Your task to perform on an android device: star an email in the gmail app Image 0: 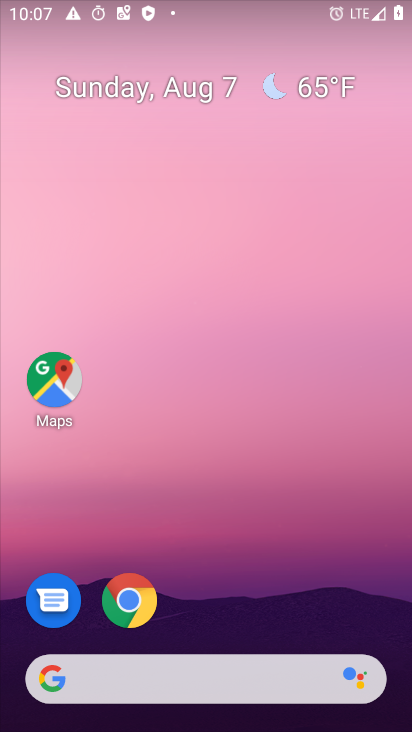
Step 0: drag from (201, 578) to (219, 32)
Your task to perform on an android device: star an email in the gmail app Image 1: 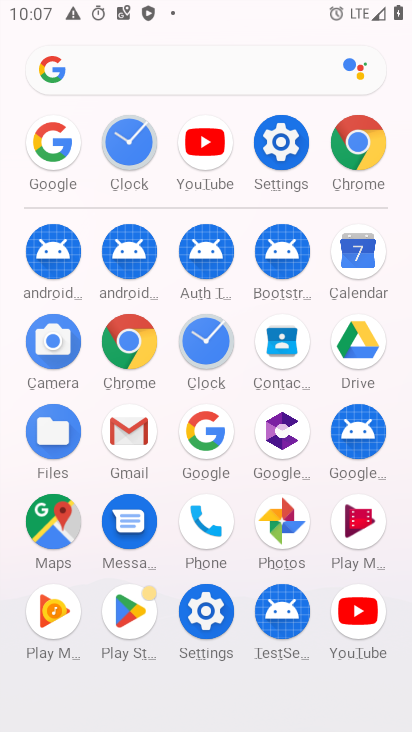
Step 1: click (122, 429)
Your task to perform on an android device: star an email in the gmail app Image 2: 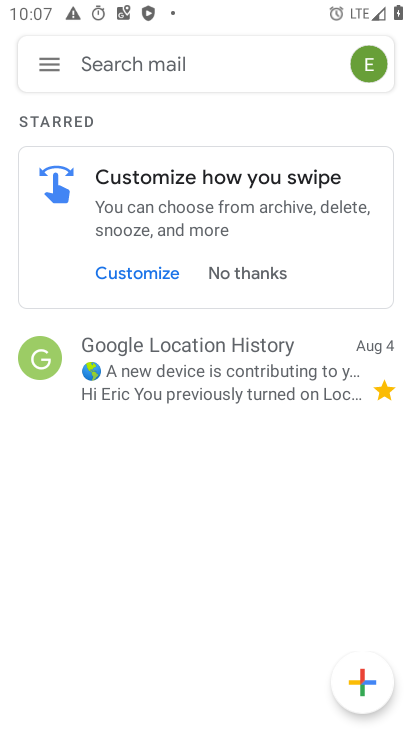
Step 2: click (43, 58)
Your task to perform on an android device: star an email in the gmail app Image 3: 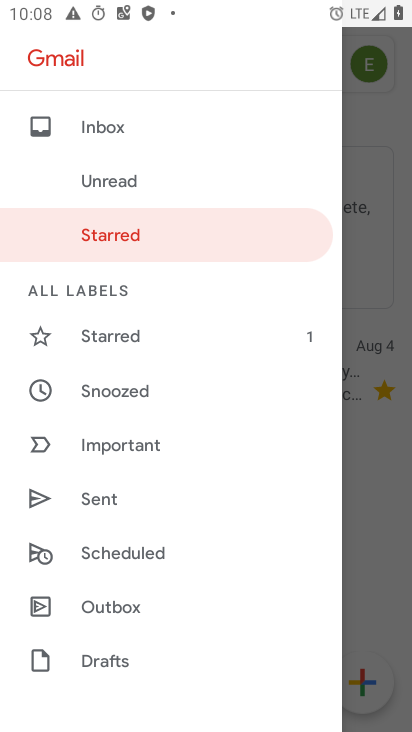
Step 3: drag from (157, 431) to (170, 248)
Your task to perform on an android device: star an email in the gmail app Image 4: 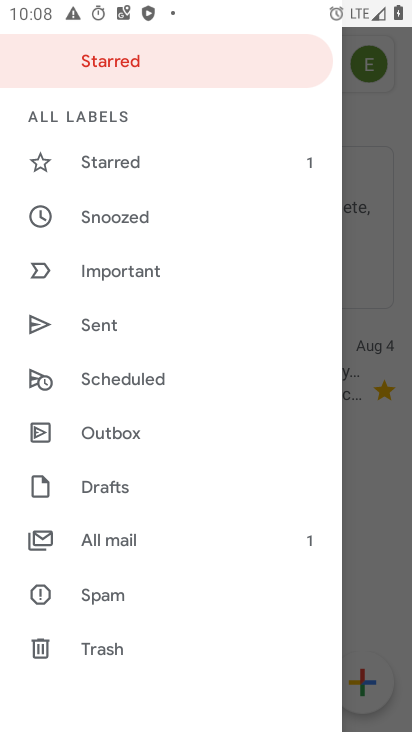
Step 4: click (133, 542)
Your task to perform on an android device: star an email in the gmail app Image 5: 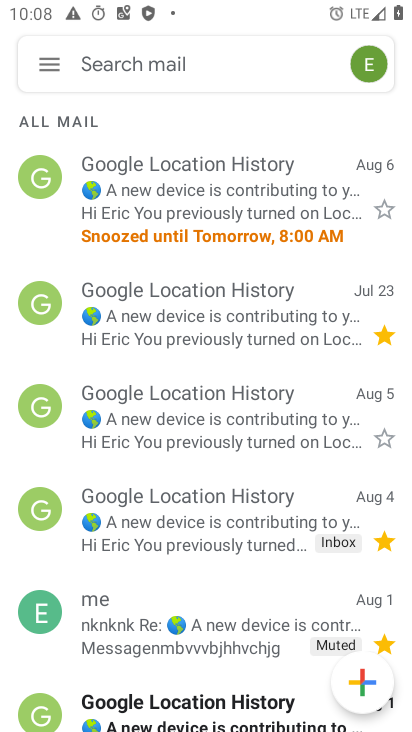
Step 5: click (386, 211)
Your task to perform on an android device: star an email in the gmail app Image 6: 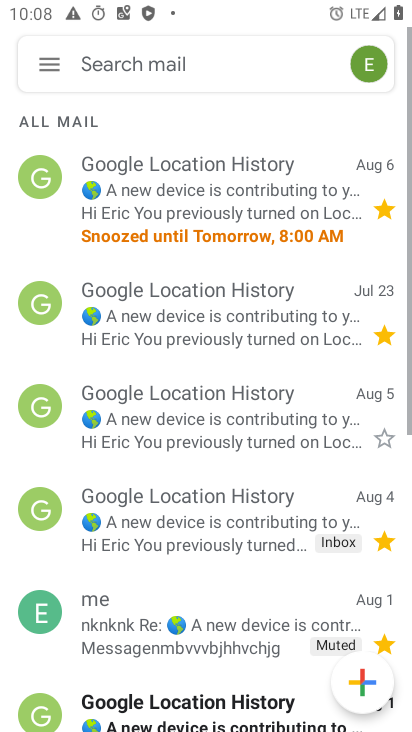
Step 6: task complete